Your task to perform on an android device: turn on the 12-hour format for clock Image 0: 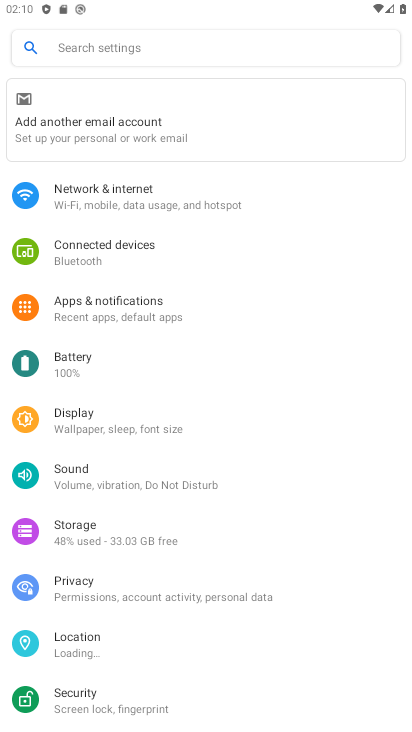
Step 0: drag from (176, 603) to (137, 72)
Your task to perform on an android device: turn on the 12-hour format for clock Image 1: 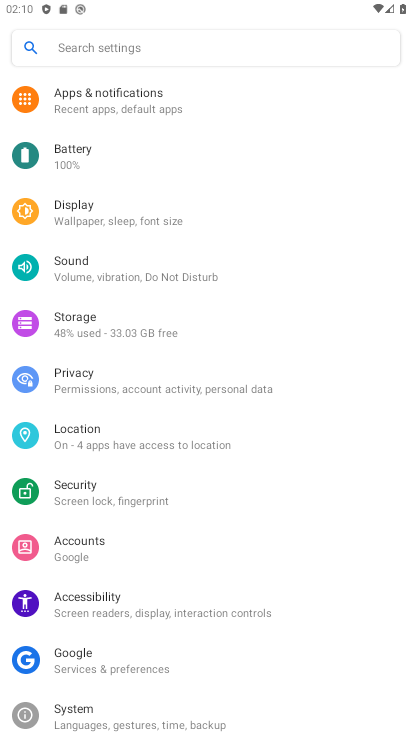
Step 1: click (114, 716)
Your task to perform on an android device: turn on the 12-hour format for clock Image 2: 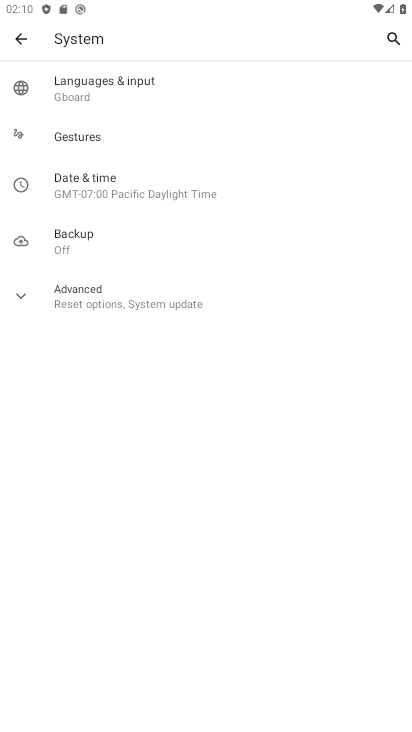
Step 2: click (71, 199)
Your task to perform on an android device: turn on the 12-hour format for clock Image 3: 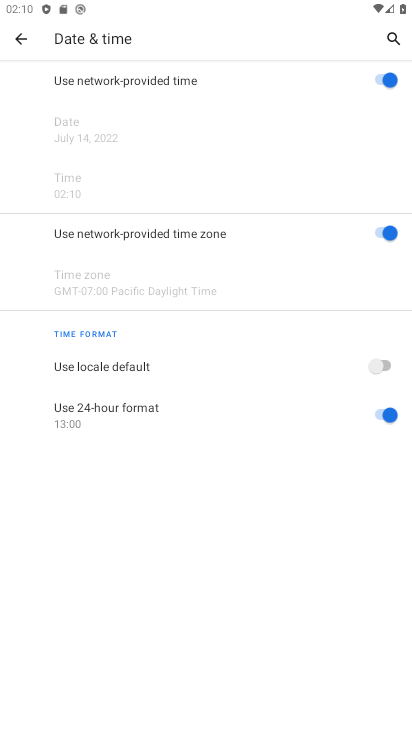
Step 3: click (389, 425)
Your task to perform on an android device: turn on the 12-hour format for clock Image 4: 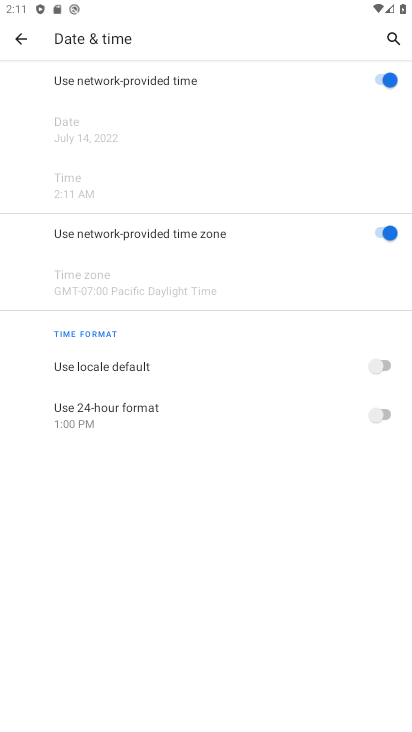
Step 4: task complete